Your task to perform on an android device: Do I have any events tomorrow? Image 0: 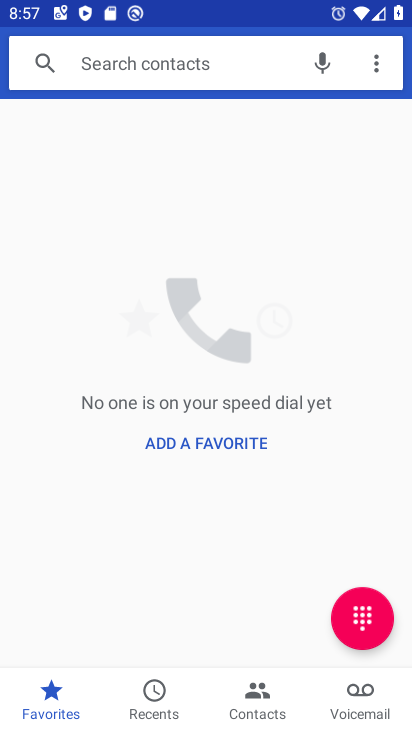
Step 0: press home button
Your task to perform on an android device: Do I have any events tomorrow? Image 1: 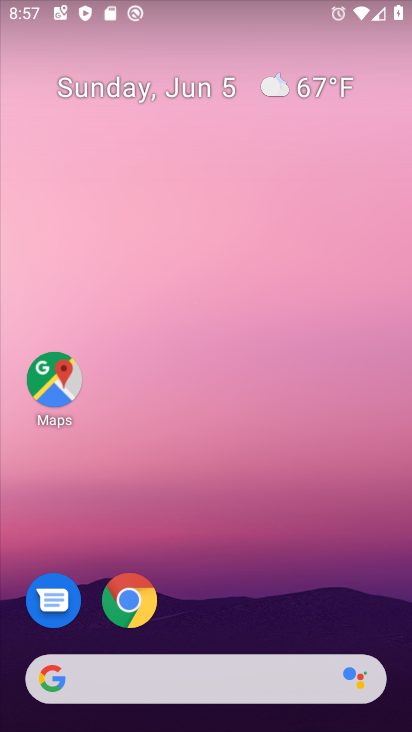
Step 1: drag from (397, 690) to (301, 0)
Your task to perform on an android device: Do I have any events tomorrow? Image 2: 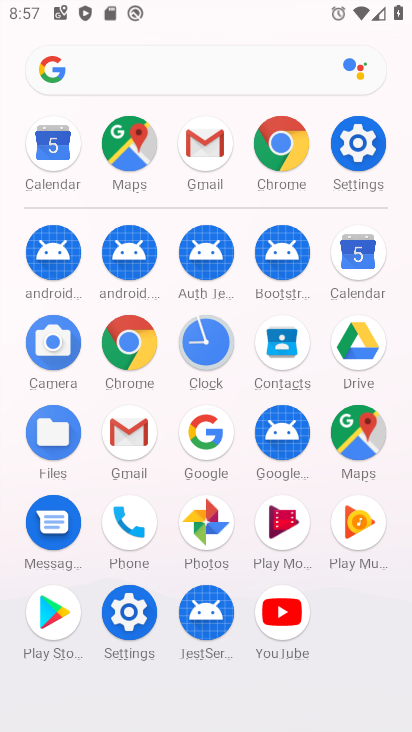
Step 2: click (362, 245)
Your task to perform on an android device: Do I have any events tomorrow? Image 3: 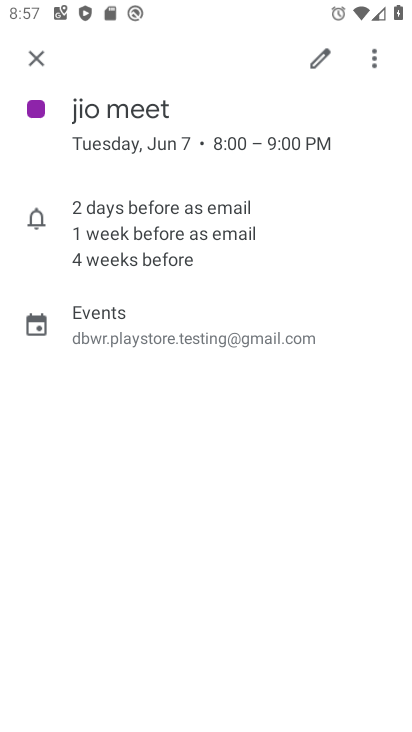
Step 3: task complete